Your task to perform on an android device: empty trash in the gmail app Image 0: 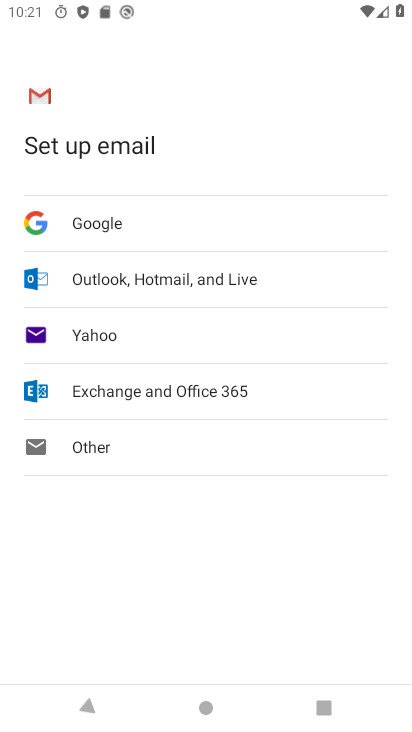
Step 0: press home button
Your task to perform on an android device: empty trash in the gmail app Image 1: 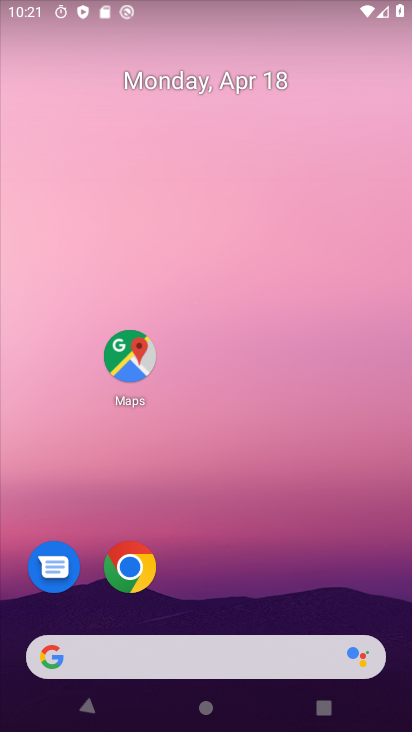
Step 1: drag from (277, 641) to (407, 181)
Your task to perform on an android device: empty trash in the gmail app Image 2: 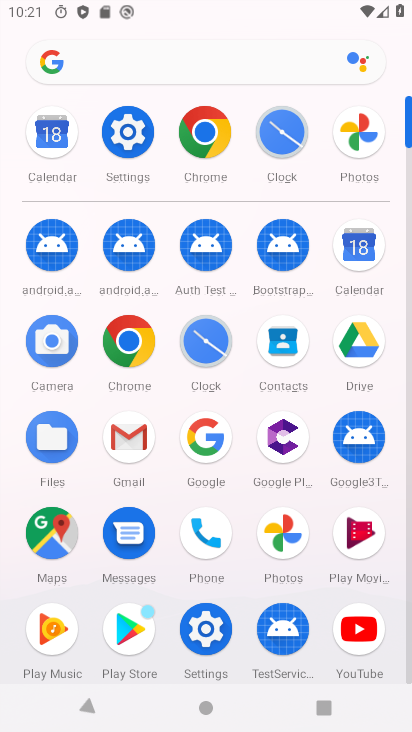
Step 2: click (145, 420)
Your task to perform on an android device: empty trash in the gmail app Image 3: 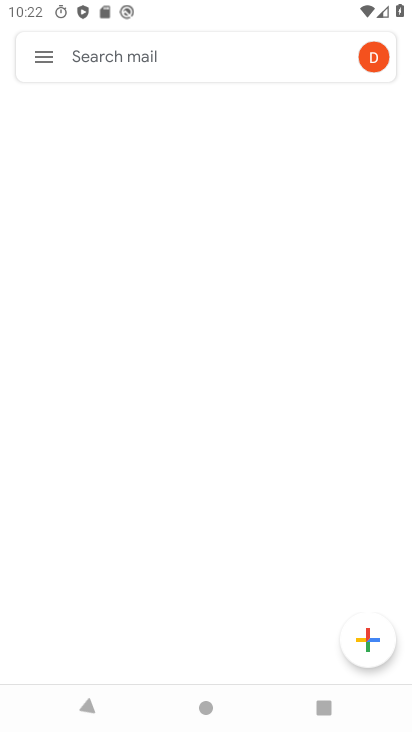
Step 3: click (35, 55)
Your task to perform on an android device: empty trash in the gmail app Image 4: 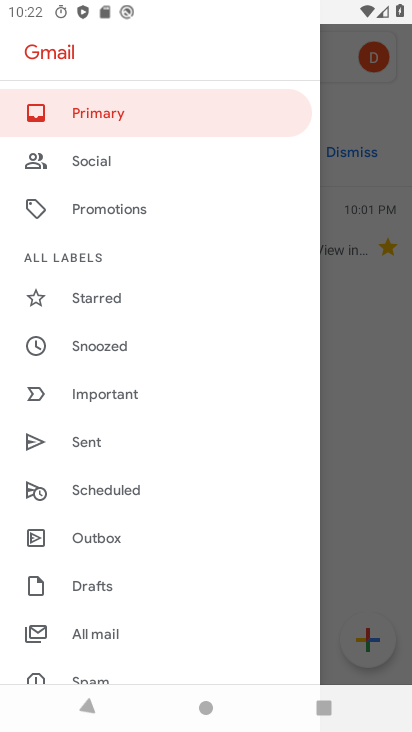
Step 4: click (96, 672)
Your task to perform on an android device: empty trash in the gmail app Image 5: 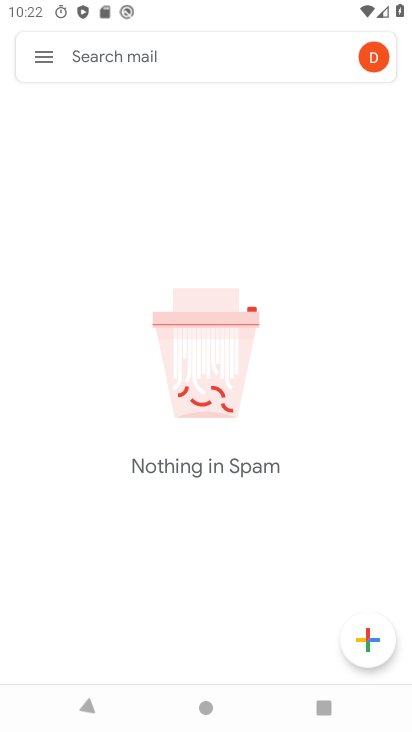
Step 5: task complete